Your task to perform on an android device: add a contact in the contacts app Image 0: 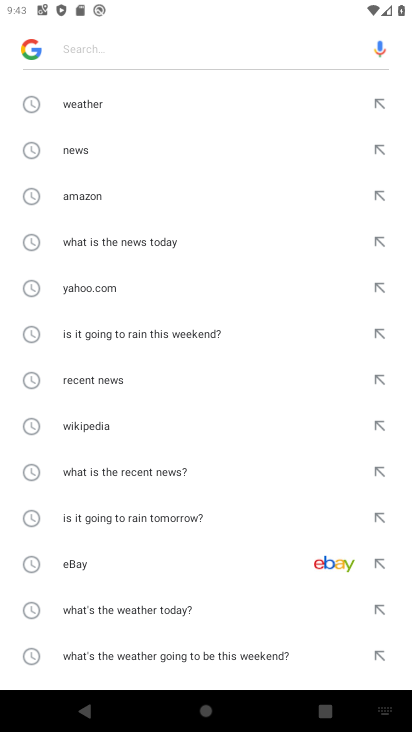
Step 0: press back button
Your task to perform on an android device: add a contact in the contacts app Image 1: 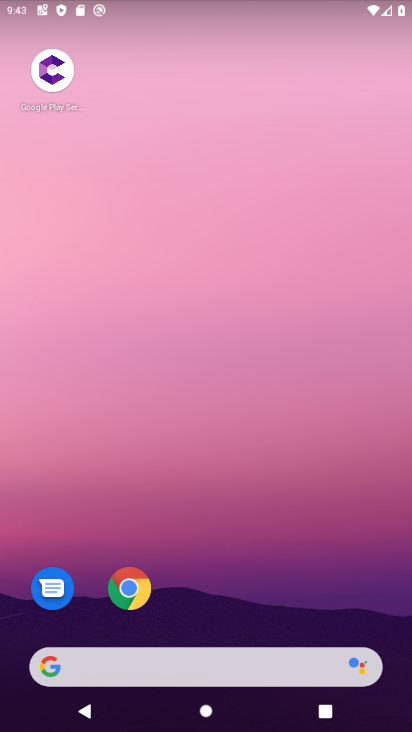
Step 1: drag from (75, 459) to (305, 174)
Your task to perform on an android device: add a contact in the contacts app Image 2: 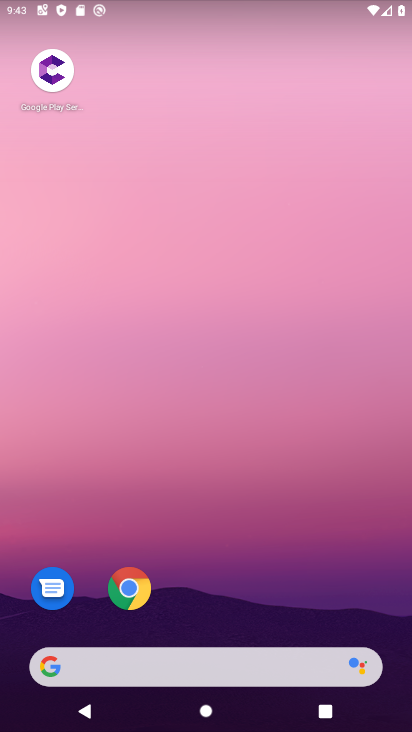
Step 2: drag from (3, 646) to (127, 164)
Your task to perform on an android device: add a contact in the contacts app Image 3: 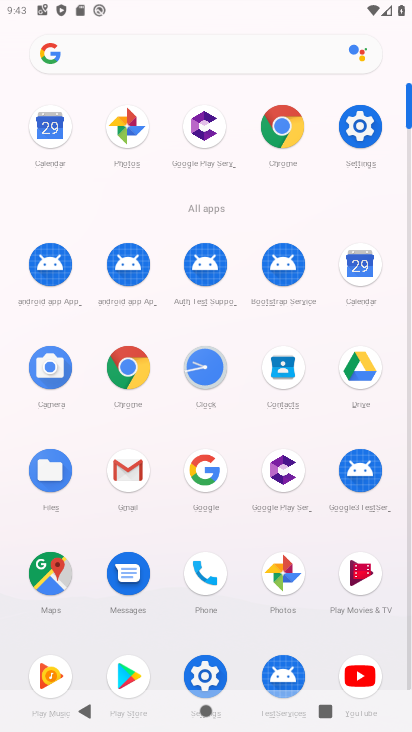
Step 3: click (195, 565)
Your task to perform on an android device: add a contact in the contacts app Image 4: 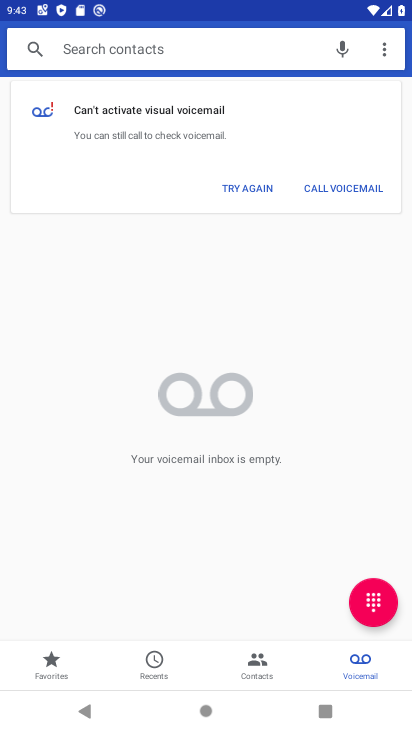
Step 4: click (247, 669)
Your task to perform on an android device: add a contact in the contacts app Image 5: 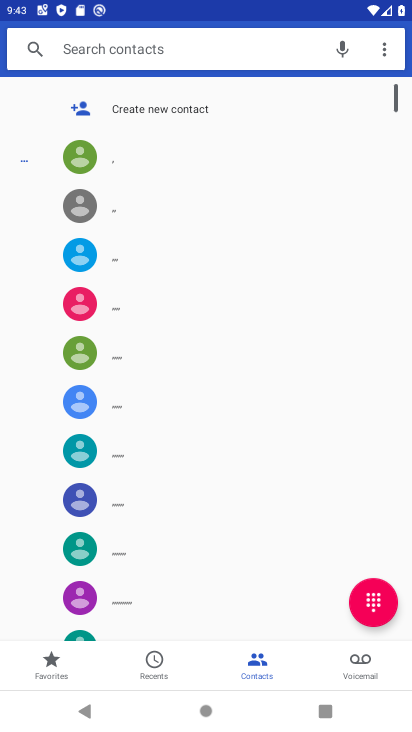
Step 5: click (193, 105)
Your task to perform on an android device: add a contact in the contacts app Image 6: 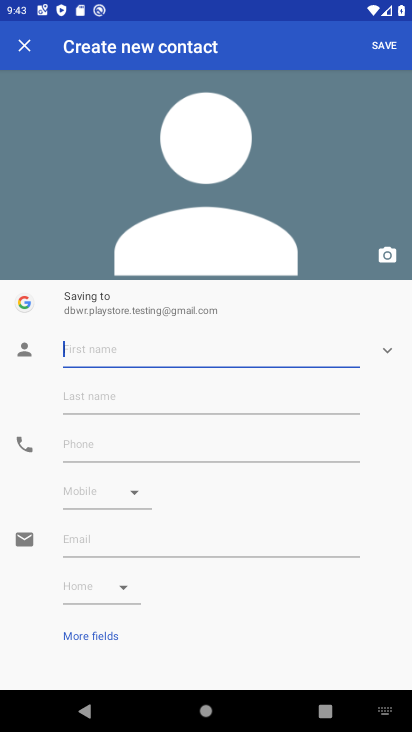
Step 6: click (117, 343)
Your task to perform on an android device: add a contact in the contacts app Image 7: 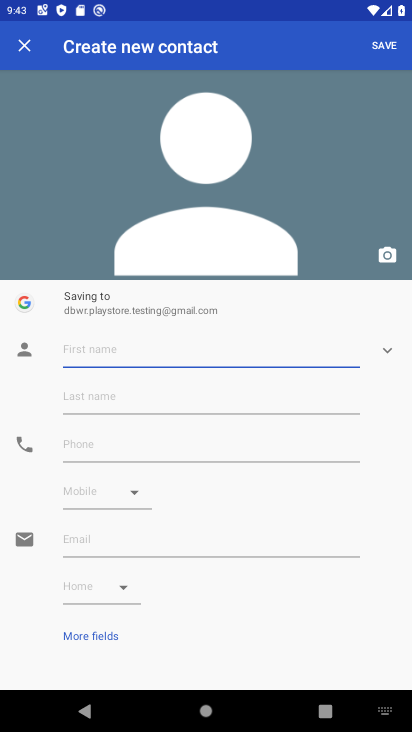
Step 7: type "hghbgvg"
Your task to perform on an android device: add a contact in the contacts app Image 8: 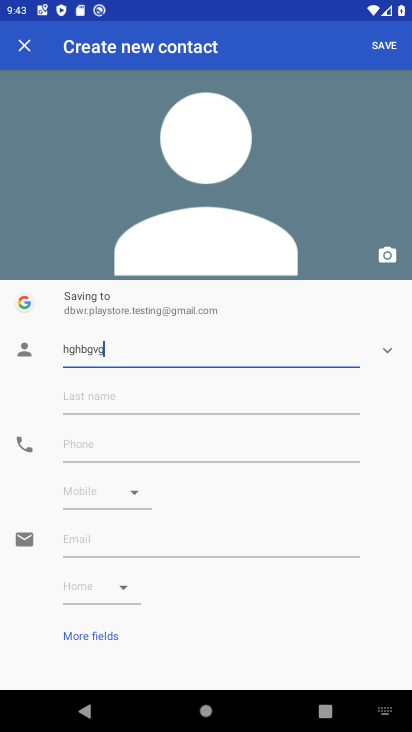
Step 8: type ""
Your task to perform on an android device: add a contact in the contacts app Image 9: 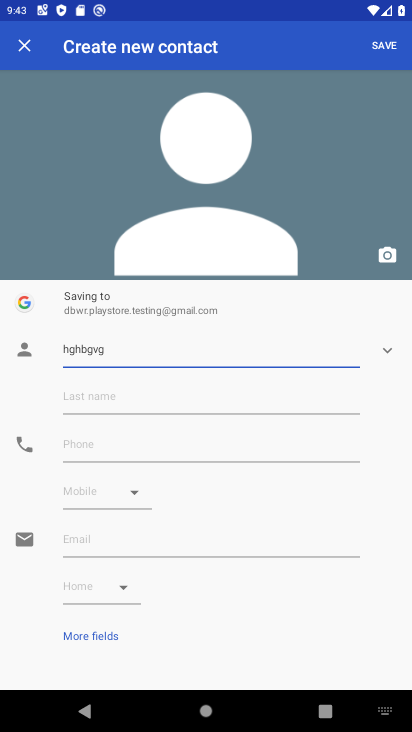
Step 9: click (399, 41)
Your task to perform on an android device: add a contact in the contacts app Image 10: 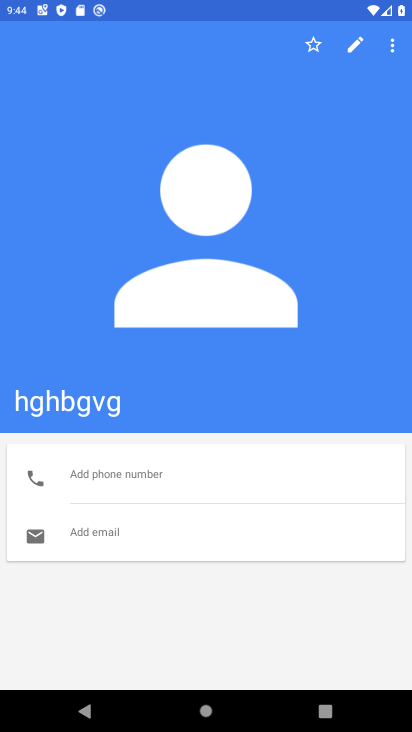
Step 10: task complete